Your task to perform on an android device: check the backup settings in the google photos Image 0: 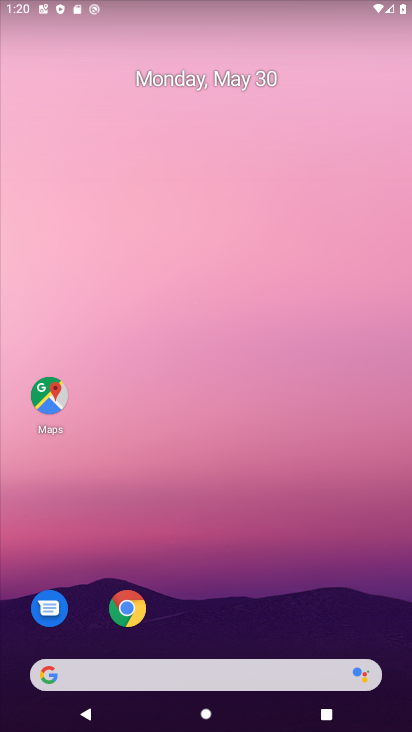
Step 0: drag from (215, 445) to (182, 252)
Your task to perform on an android device: check the backup settings in the google photos Image 1: 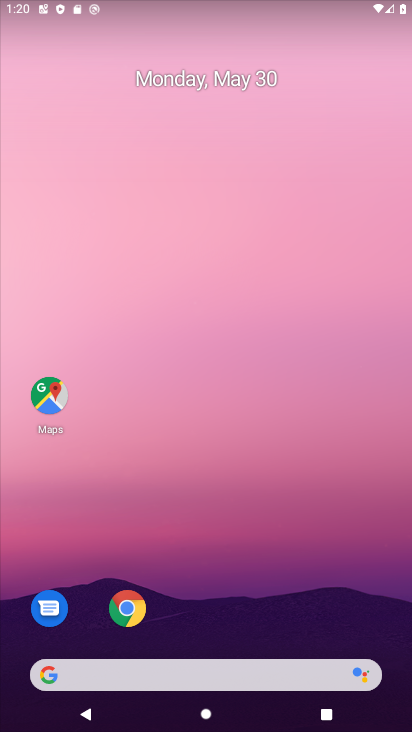
Step 1: drag from (208, 635) to (214, 172)
Your task to perform on an android device: check the backup settings in the google photos Image 2: 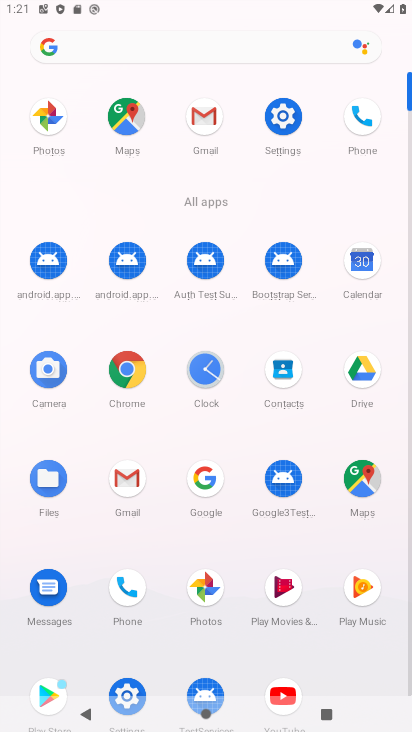
Step 2: click (203, 471)
Your task to perform on an android device: check the backup settings in the google photos Image 3: 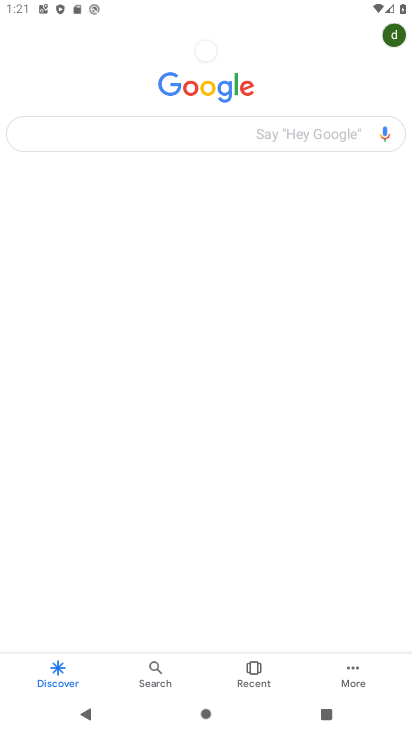
Step 3: press back button
Your task to perform on an android device: check the backup settings in the google photos Image 4: 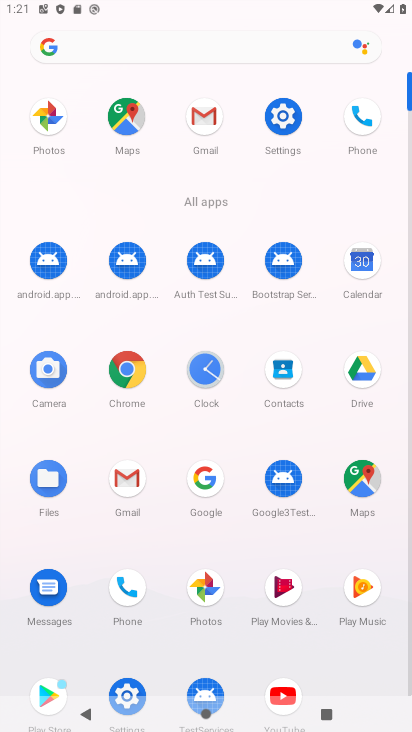
Step 4: click (204, 577)
Your task to perform on an android device: check the backup settings in the google photos Image 5: 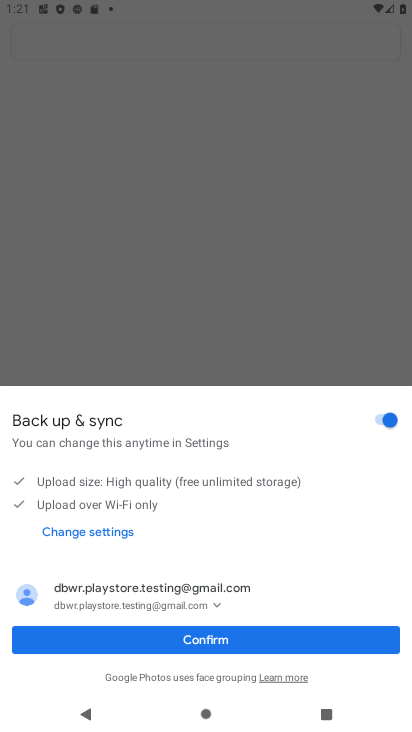
Step 5: click (204, 632)
Your task to perform on an android device: check the backup settings in the google photos Image 6: 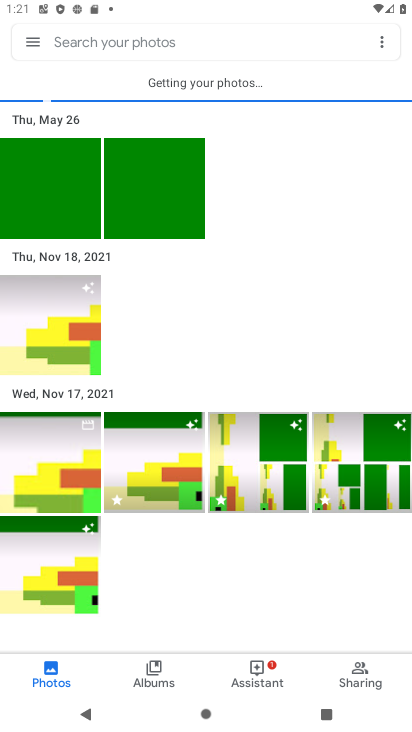
Step 6: click (27, 39)
Your task to perform on an android device: check the backup settings in the google photos Image 7: 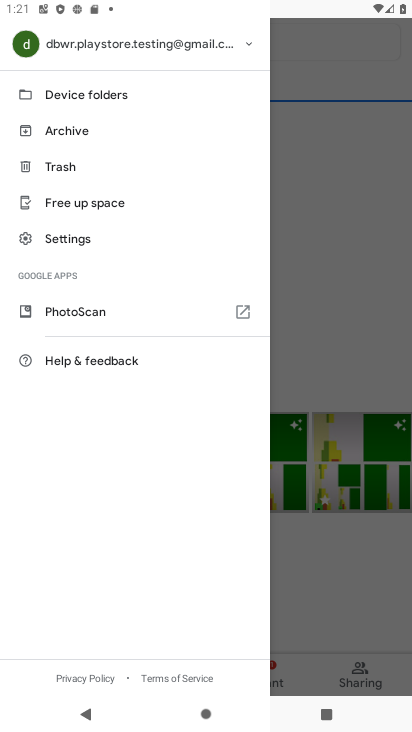
Step 7: click (76, 230)
Your task to perform on an android device: check the backup settings in the google photos Image 8: 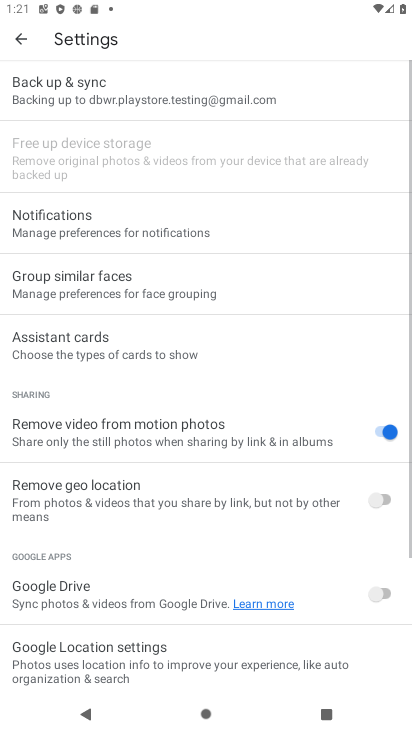
Step 8: click (116, 83)
Your task to perform on an android device: check the backup settings in the google photos Image 9: 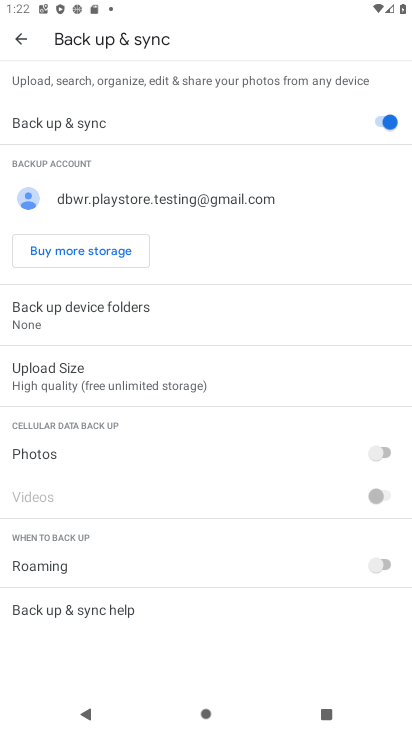
Step 9: task complete